Your task to perform on an android device: Turn on the flashlight Image 0: 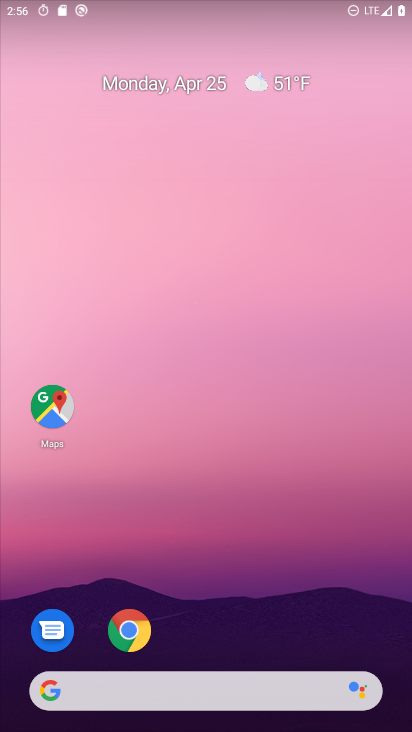
Step 0: drag from (222, 645) to (212, 184)
Your task to perform on an android device: Turn on the flashlight Image 1: 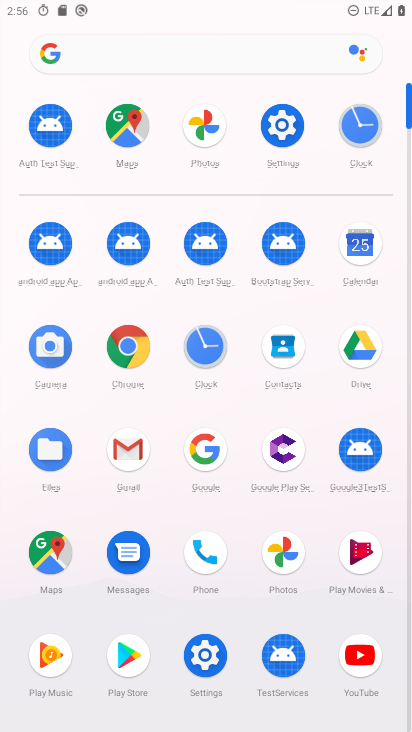
Step 1: click (214, 670)
Your task to perform on an android device: Turn on the flashlight Image 2: 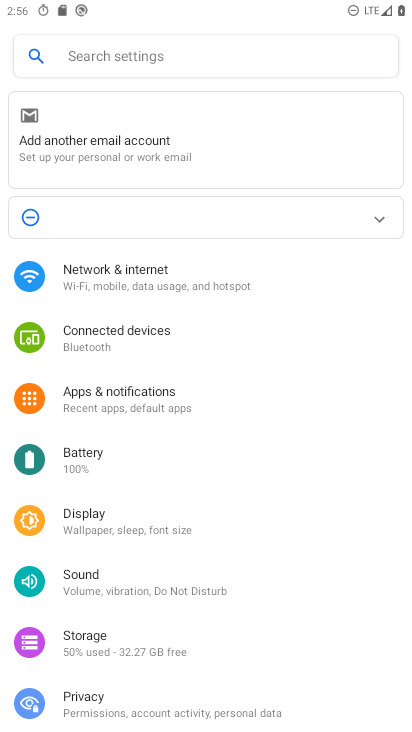
Step 2: click (279, 64)
Your task to perform on an android device: Turn on the flashlight Image 3: 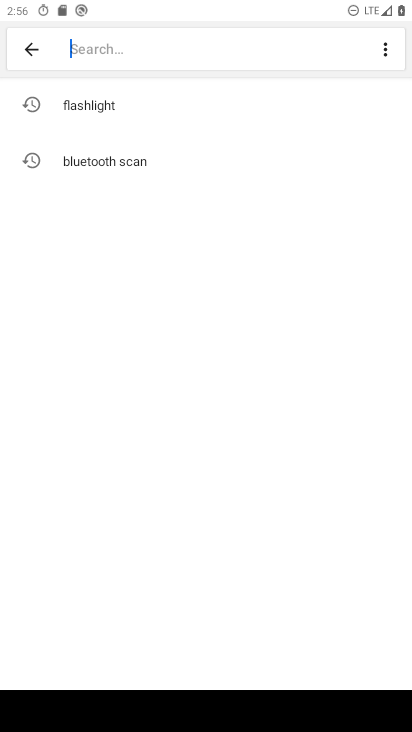
Step 3: click (180, 112)
Your task to perform on an android device: Turn on the flashlight Image 4: 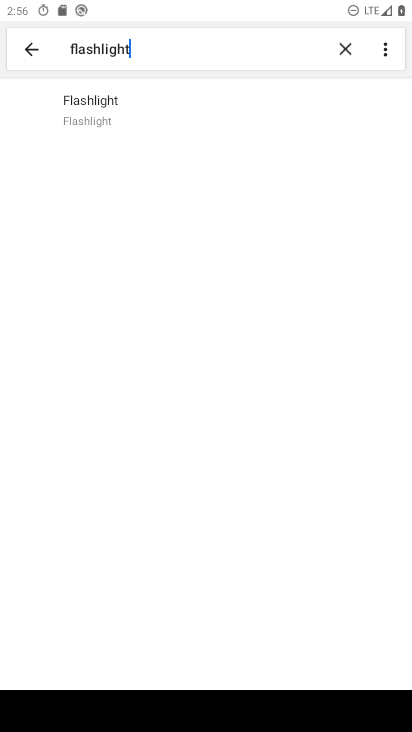
Step 4: click (349, 128)
Your task to perform on an android device: Turn on the flashlight Image 5: 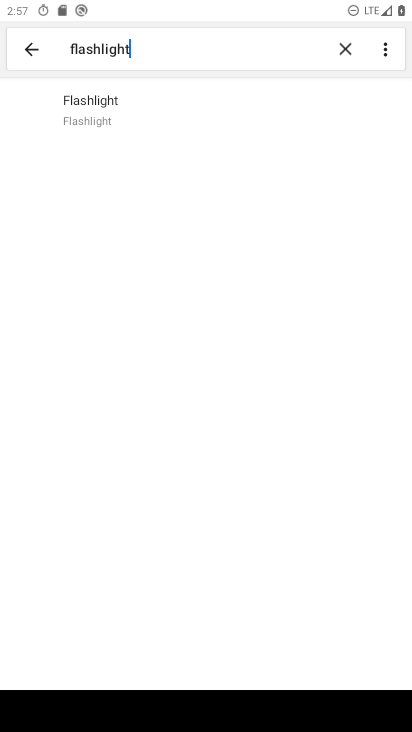
Step 5: task complete